Your task to perform on an android device: turn off wifi Image 0: 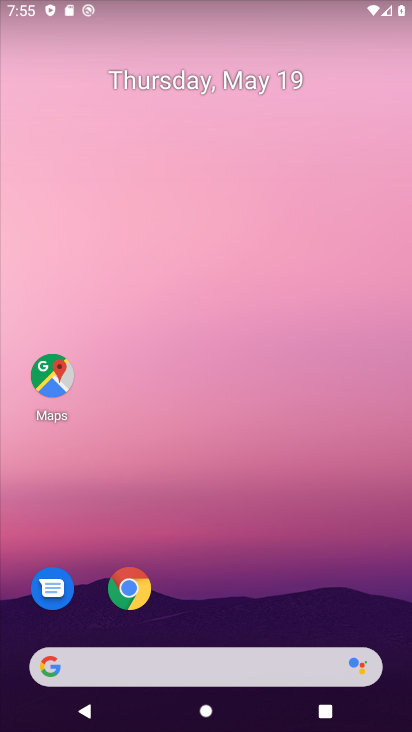
Step 0: drag from (303, 347) to (157, 444)
Your task to perform on an android device: turn off wifi Image 1: 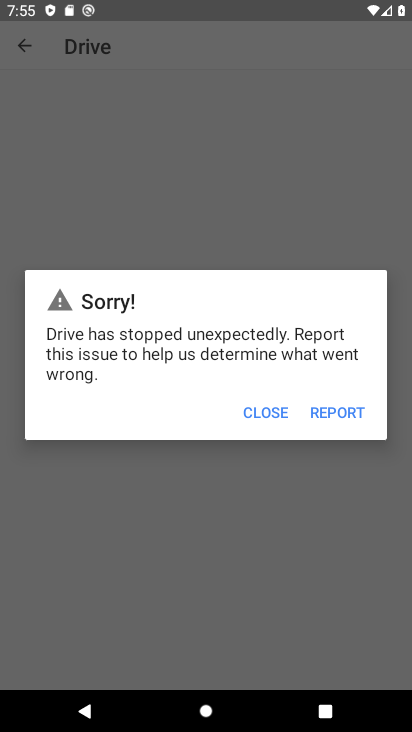
Step 1: press home button
Your task to perform on an android device: turn off wifi Image 2: 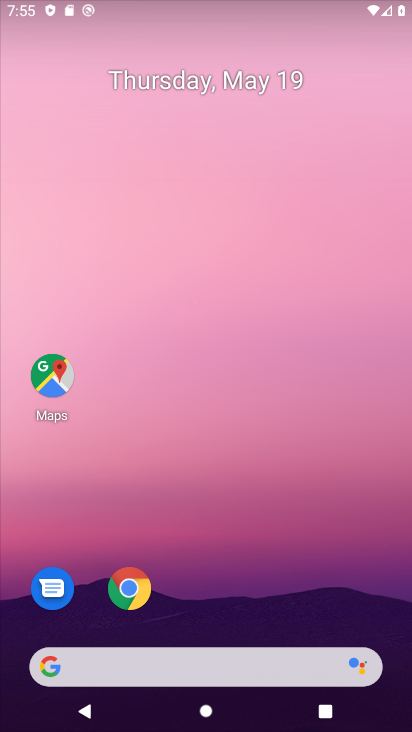
Step 2: drag from (305, 590) to (297, 221)
Your task to perform on an android device: turn off wifi Image 3: 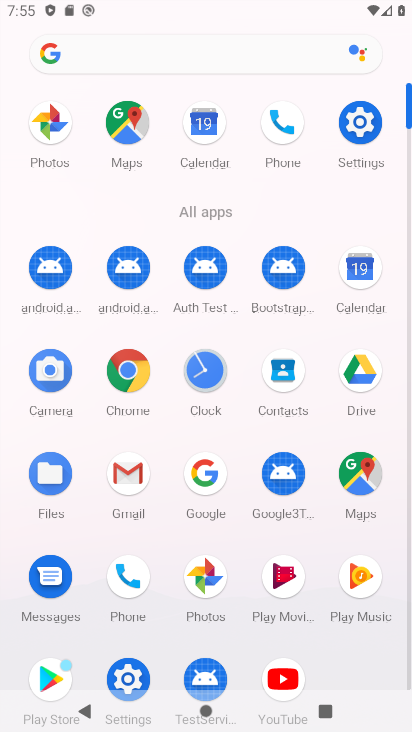
Step 3: click (355, 114)
Your task to perform on an android device: turn off wifi Image 4: 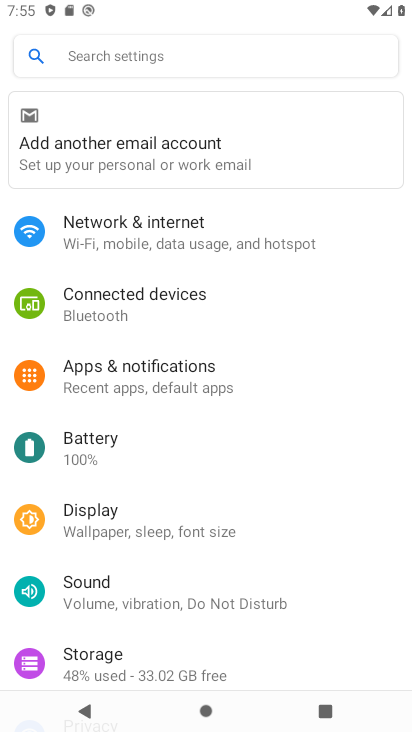
Step 4: click (231, 218)
Your task to perform on an android device: turn off wifi Image 5: 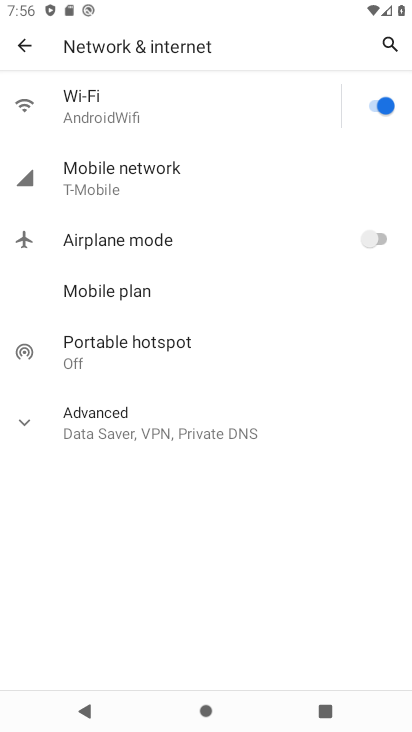
Step 5: click (366, 103)
Your task to perform on an android device: turn off wifi Image 6: 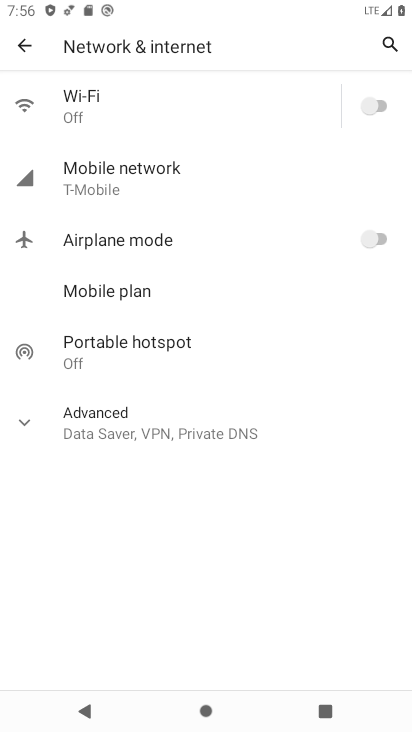
Step 6: task complete